Your task to perform on an android device: Search for Italian restaurants on Maps Image 0: 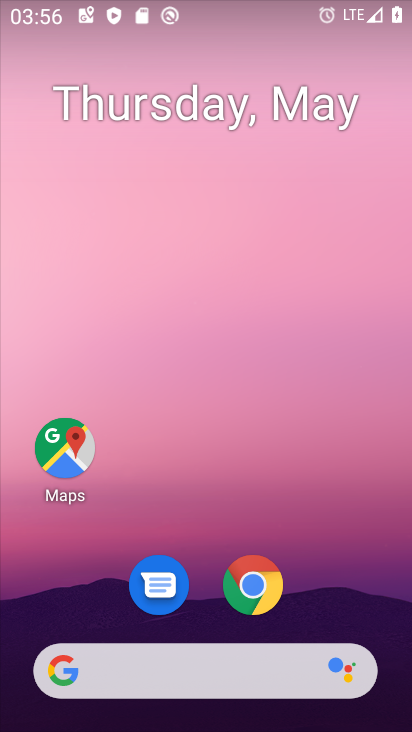
Step 0: click (68, 452)
Your task to perform on an android device: Search for Italian restaurants on Maps Image 1: 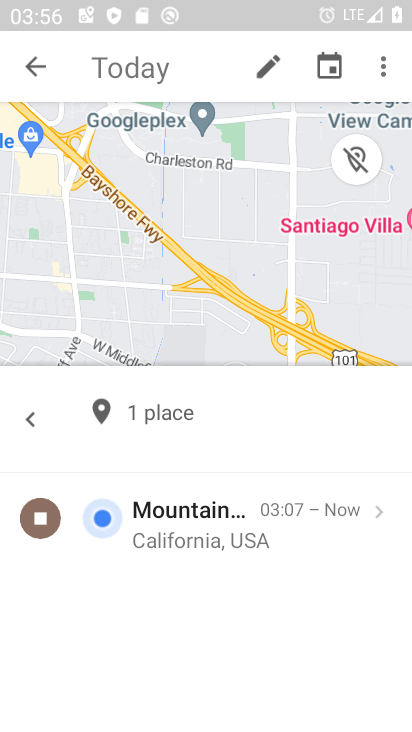
Step 1: click (42, 61)
Your task to perform on an android device: Search for Italian restaurants on Maps Image 2: 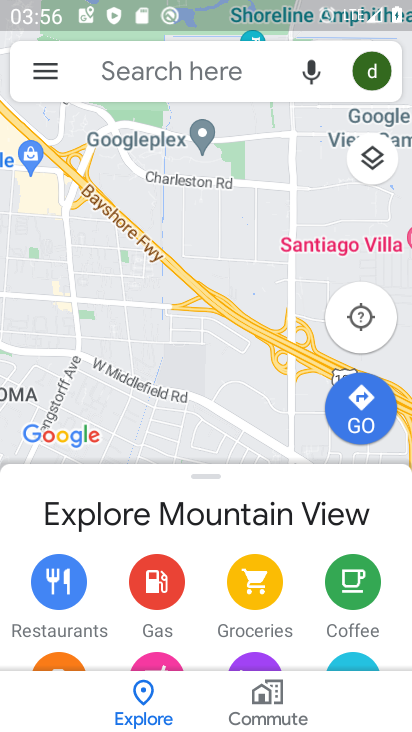
Step 2: click (179, 70)
Your task to perform on an android device: Search for Italian restaurants on Maps Image 3: 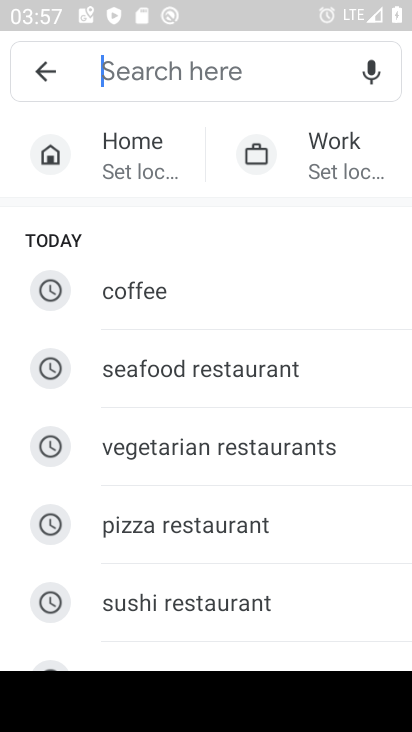
Step 3: drag from (232, 501) to (270, 189)
Your task to perform on an android device: Search for Italian restaurants on Maps Image 4: 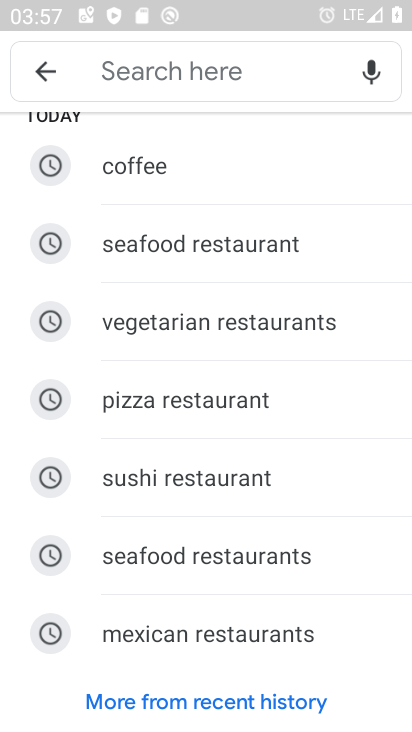
Step 4: click (256, 67)
Your task to perform on an android device: Search for Italian restaurants on Maps Image 5: 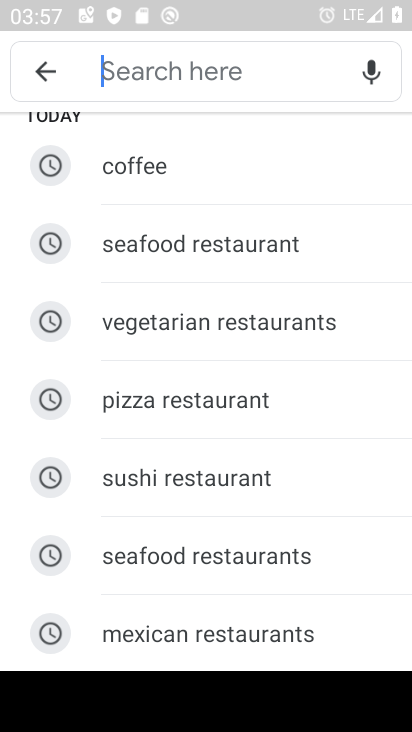
Step 5: type "italian restaurants"
Your task to perform on an android device: Search for Italian restaurants on Maps Image 6: 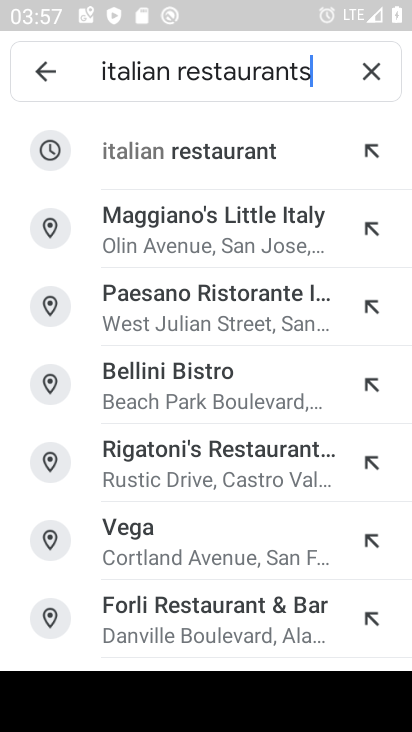
Step 6: click (207, 145)
Your task to perform on an android device: Search for Italian restaurants on Maps Image 7: 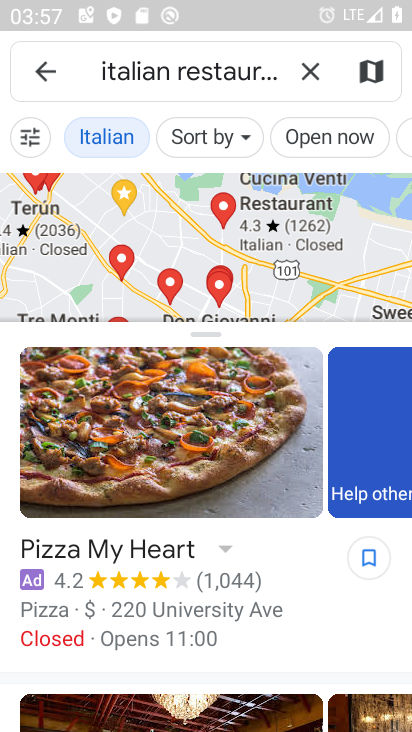
Step 7: task complete